Your task to perform on an android device: turn notification dots on Image 0: 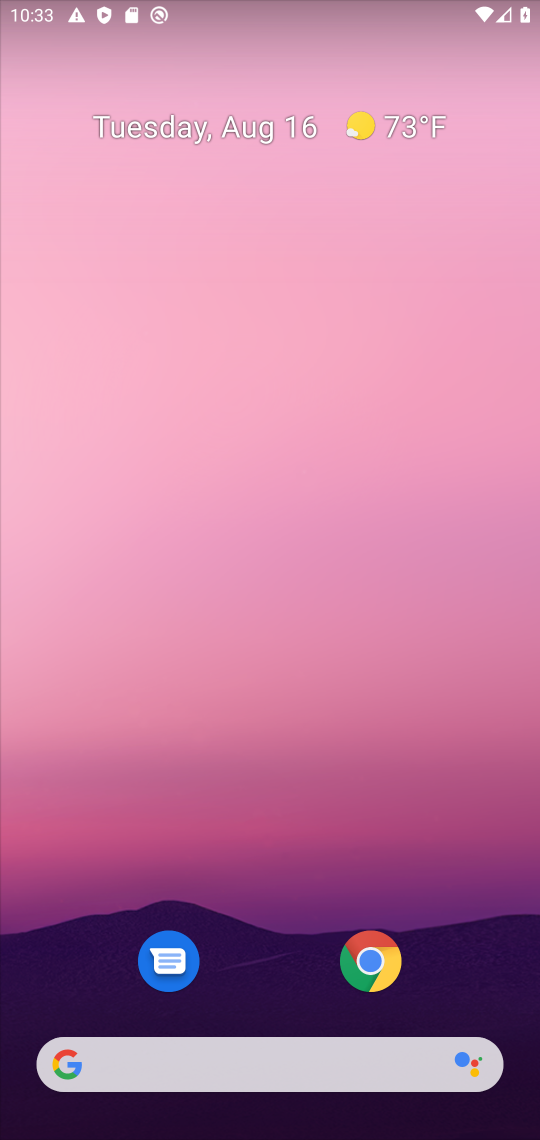
Step 0: drag from (287, 978) to (308, 402)
Your task to perform on an android device: turn notification dots on Image 1: 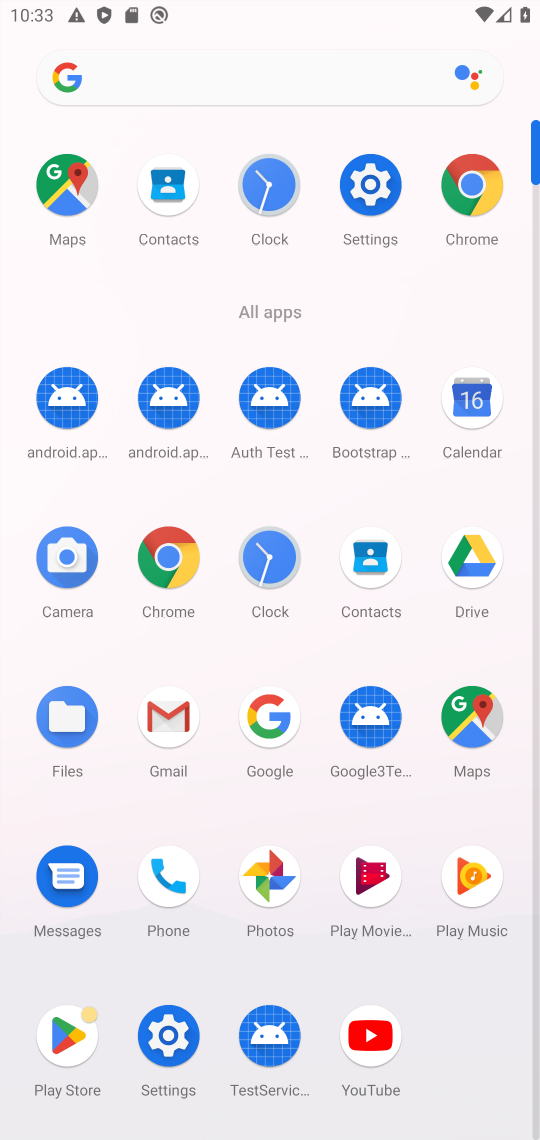
Step 1: click (167, 1036)
Your task to perform on an android device: turn notification dots on Image 2: 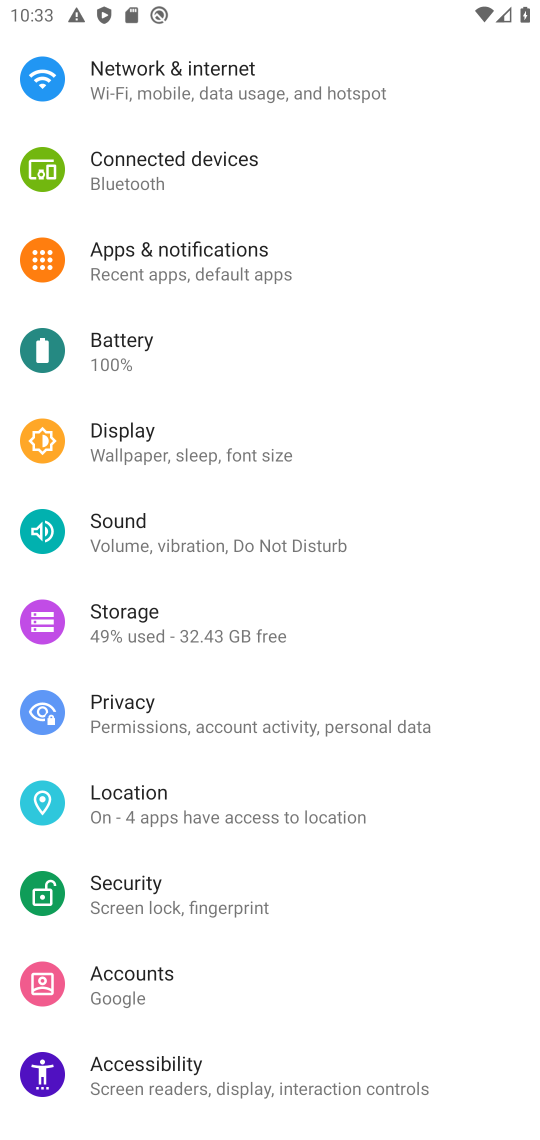
Step 2: task complete